Your task to perform on an android device: Open Amazon Image 0: 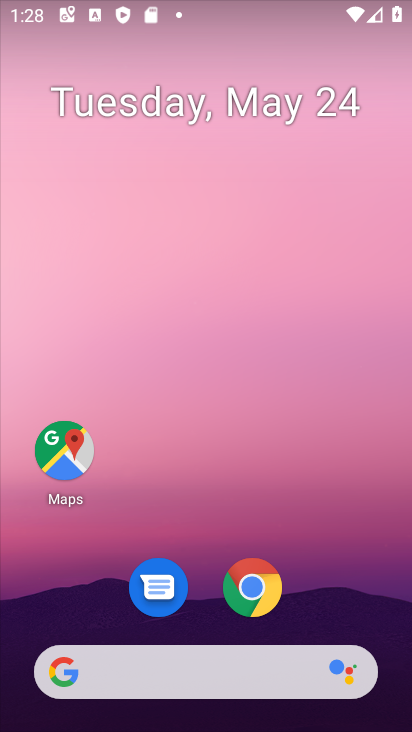
Step 0: click (224, 657)
Your task to perform on an android device: Open Amazon Image 1: 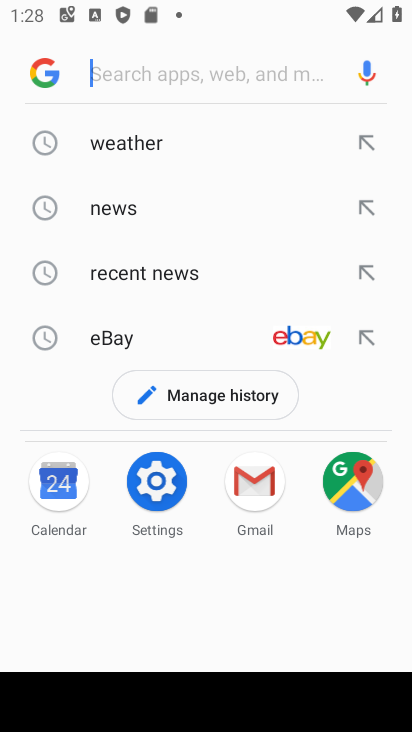
Step 1: type "amazon"
Your task to perform on an android device: Open Amazon Image 2: 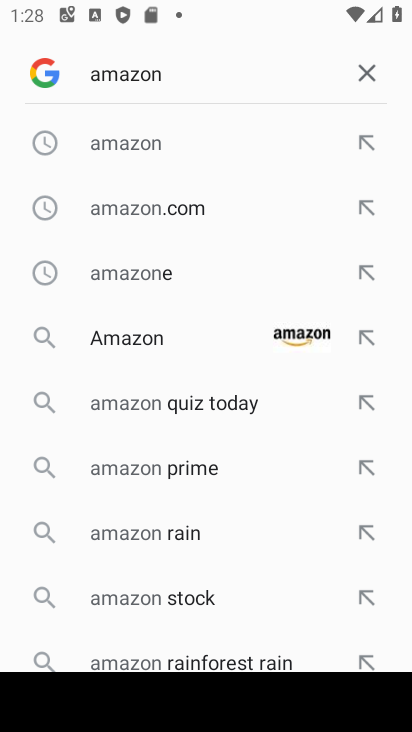
Step 2: click (311, 340)
Your task to perform on an android device: Open Amazon Image 3: 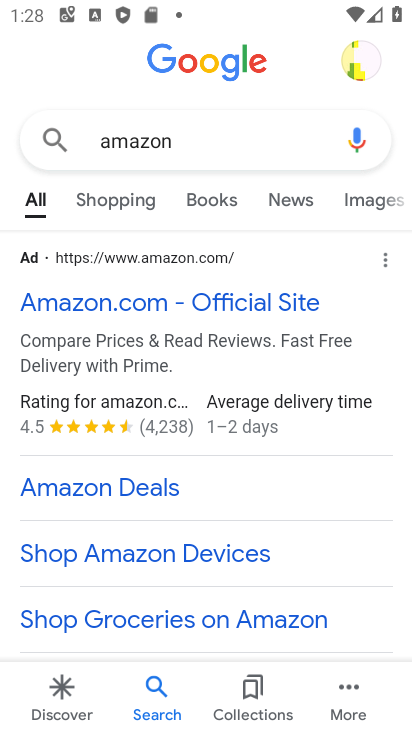
Step 3: click (187, 258)
Your task to perform on an android device: Open Amazon Image 4: 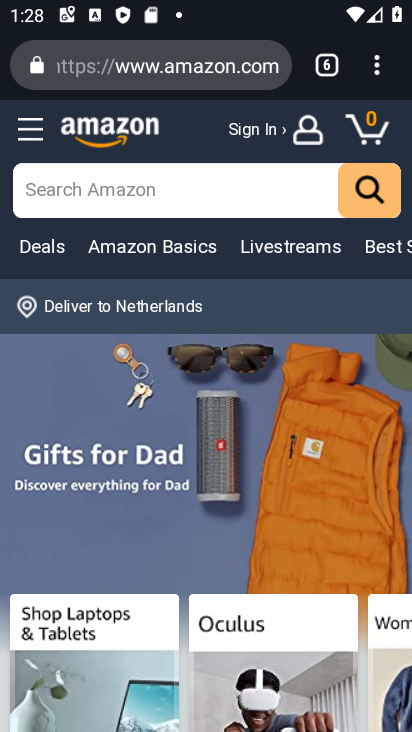
Step 4: task complete